Your task to perform on an android device: Is it going to rain today? Image 0: 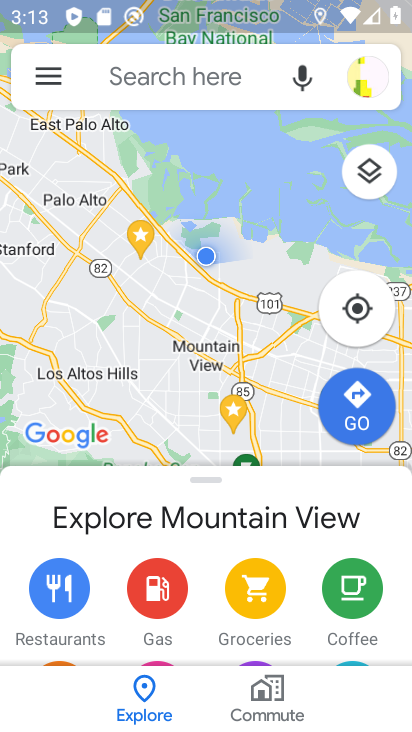
Step 0: press home button
Your task to perform on an android device: Is it going to rain today? Image 1: 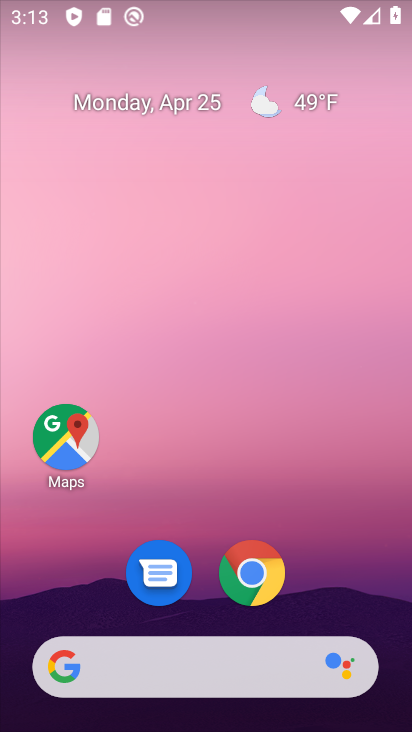
Step 1: click (305, 108)
Your task to perform on an android device: Is it going to rain today? Image 2: 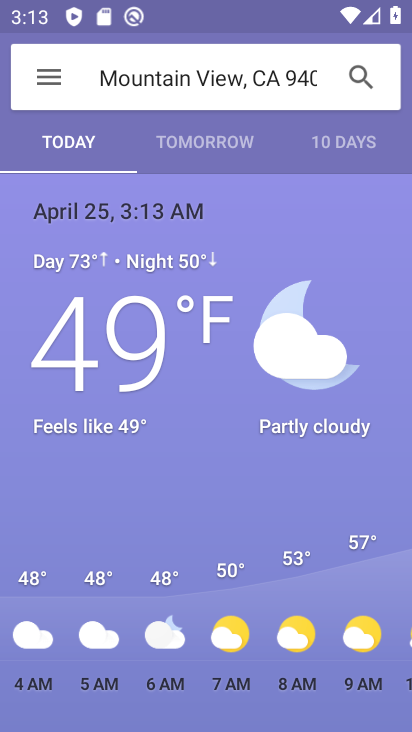
Step 2: task complete